Your task to perform on an android device: turn on showing notifications on the lock screen Image 0: 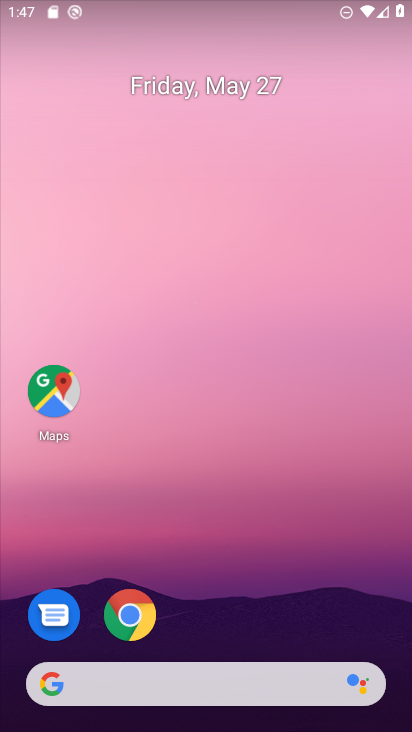
Step 0: drag from (241, 598) to (235, 153)
Your task to perform on an android device: turn on showing notifications on the lock screen Image 1: 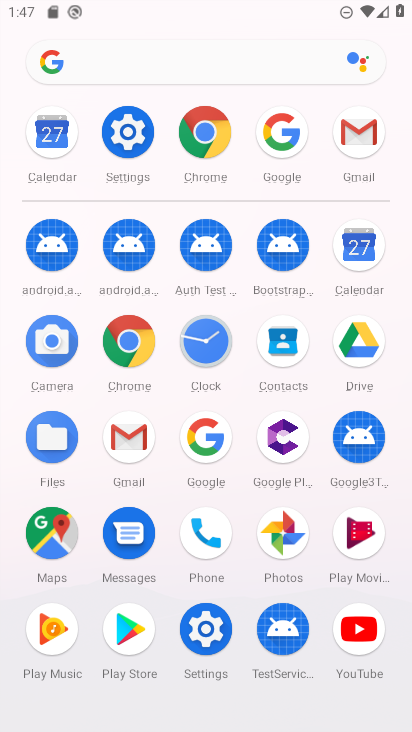
Step 1: click (197, 648)
Your task to perform on an android device: turn on showing notifications on the lock screen Image 2: 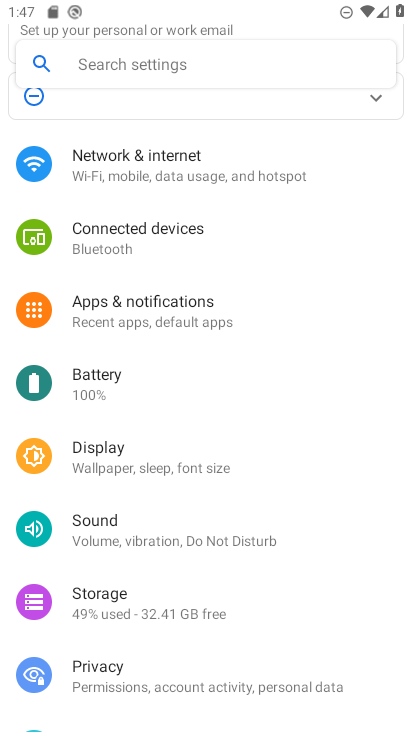
Step 2: click (202, 327)
Your task to perform on an android device: turn on showing notifications on the lock screen Image 3: 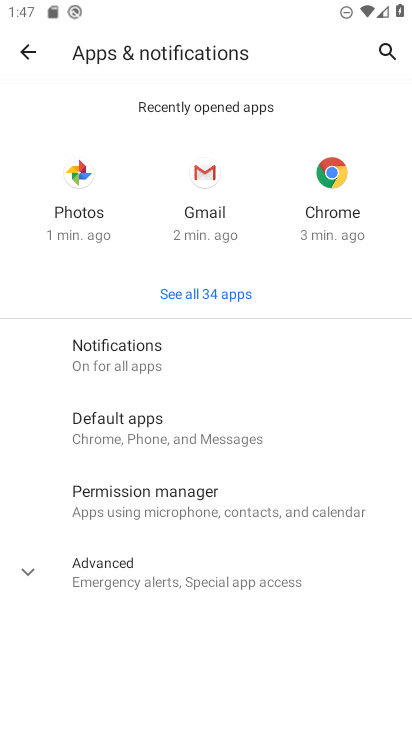
Step 3: click (194, 359)
Your task to perform on an android device: turn on showing notifications on the lock screen Image 4: 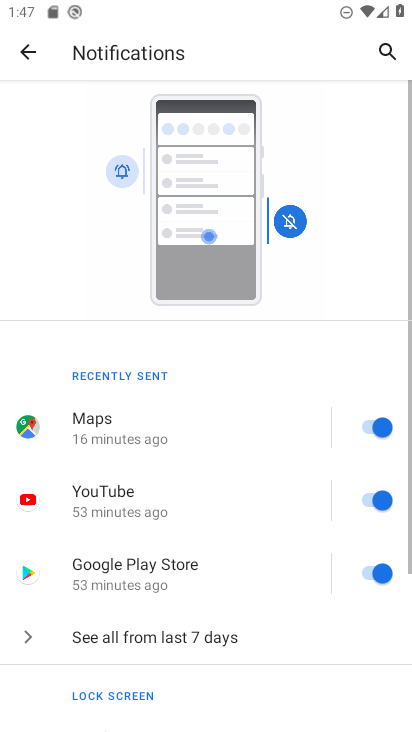
Step 4: drag from (139, 642) to (138, 321)
Your task to perform on an android device: turn on showing notifications on the lock screen Image 5: 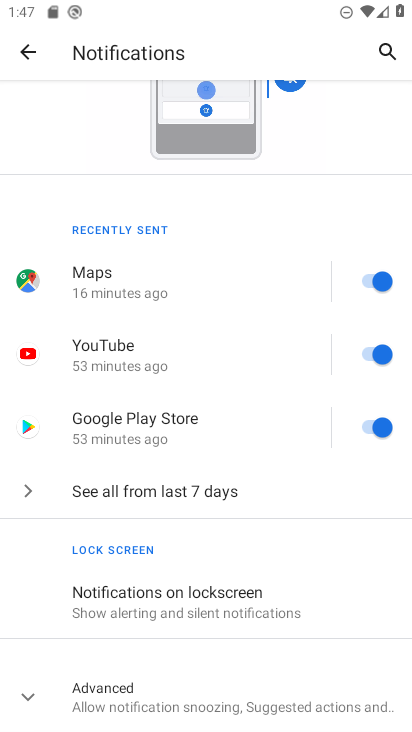
Step 5: click (162, 593)
Your task to perform on an android device: turn on showing notifications on the lock screen Image 6: 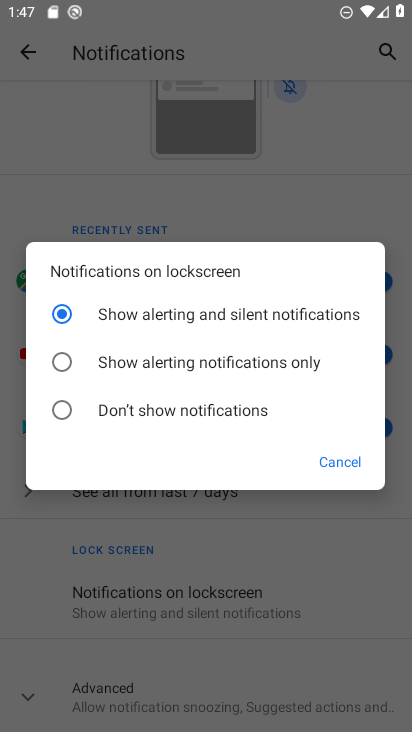
Step 6: task complete